Your task to perform on an android device: set the stopwatch Image 0: 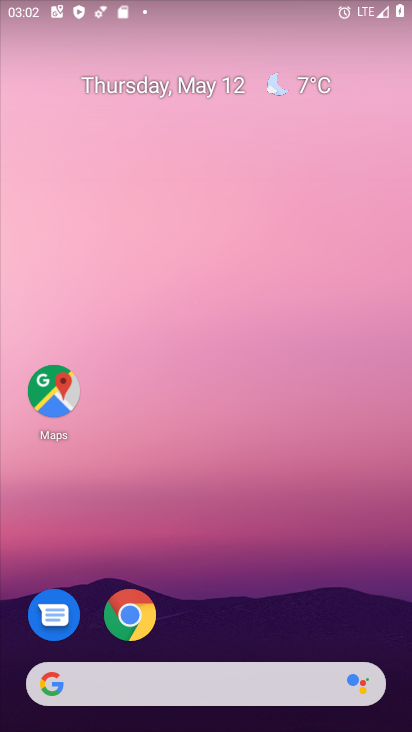
Step 0: drag from (249, 674) to (283, 88)
Your task to perform on an android device: set the stopwatch Image 1: 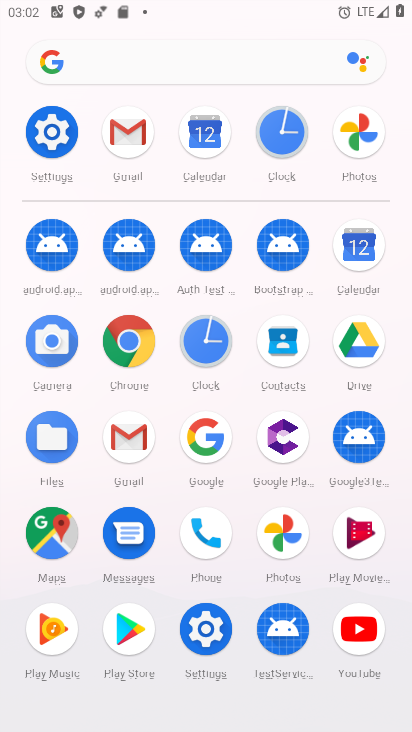
Step 1: click (205, 363)
Your task to perform on an android device: set the stopwatch Image 2: 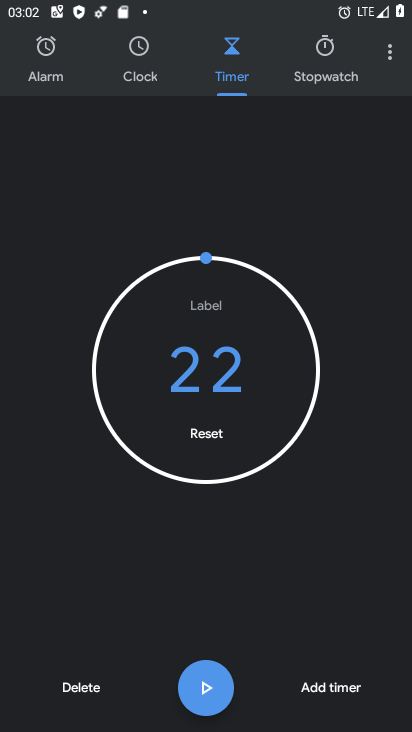
Step 2: click (313, 81)
Your task to perform on an android device: set the stopwatch Image 3: 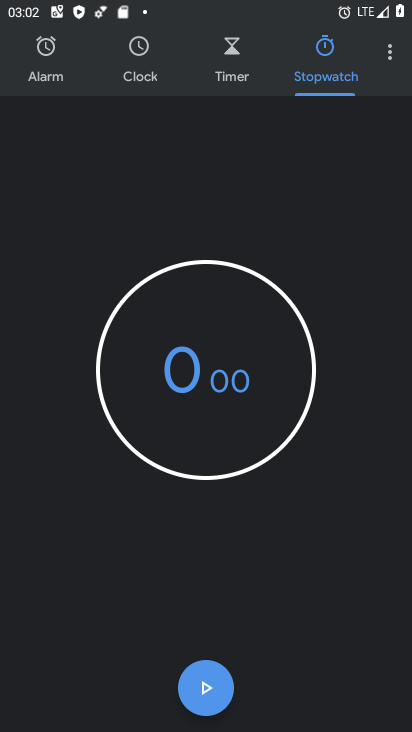
Step 3: click (202, 681)
Your task to perform on an android device: set the stopwatch Image 4: 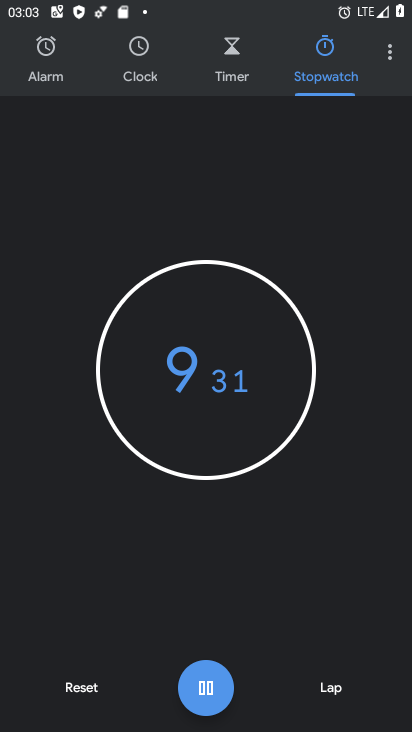
Step 4: task complete